Your task to perform on an android device: Show me popular videos on Youtube Image 0: 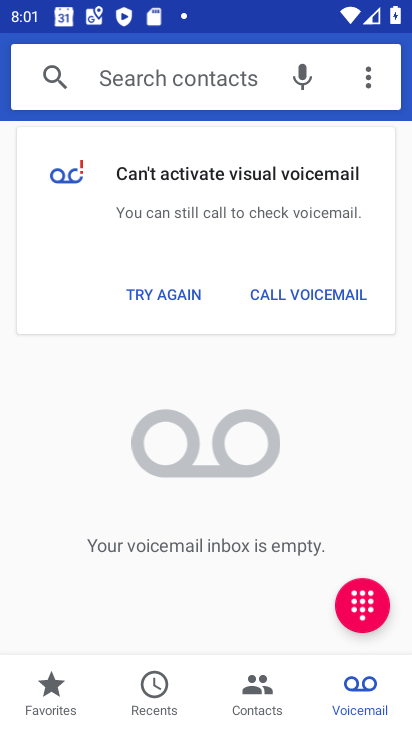
Step 0: press home button
Your task to perform on an android device: Show me popular videos on Youtube Image 1: 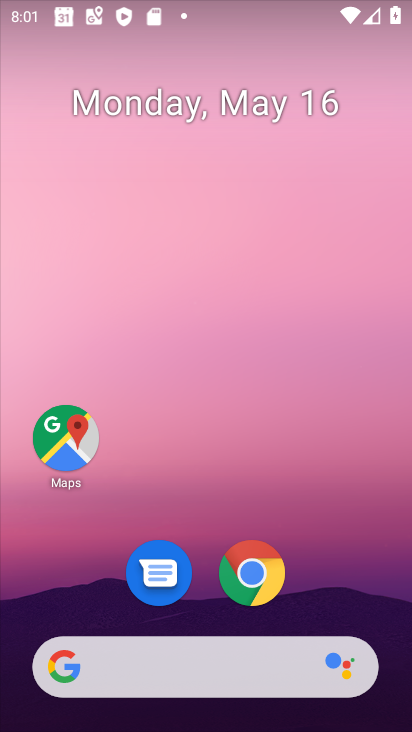
Step 1: drag from (354, 516) to (310, 167)
Your task to perform on an android device: Show me popular videos on Youtube Image 2: 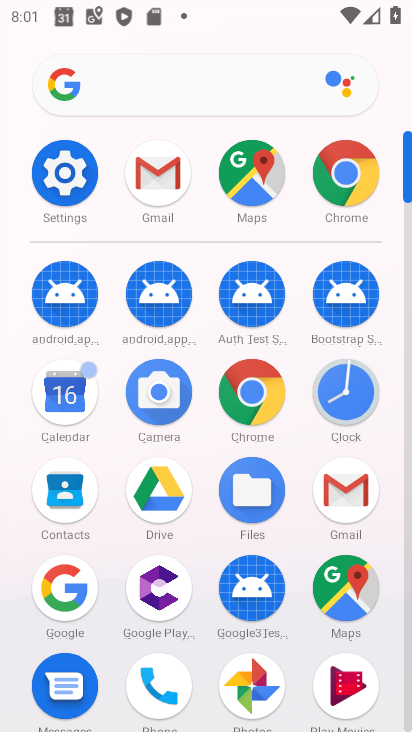
Step 2: drag from (400, 546) to (329, 302)
Your task to perform on an android device: Show me popular videos on Youtube Image 3: 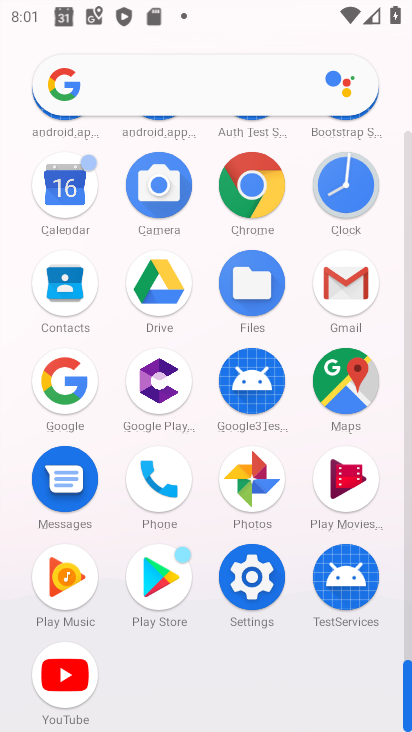
Step 3: click (40, 678)
Your task to perform on an android device: Show me popular videos on Youtube Image 4: 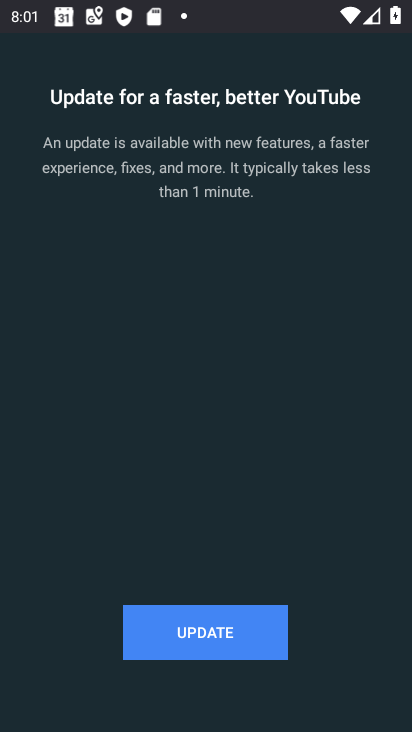
Step 4: click (195, 632)
Your task to perform on an android device: Show me popular videos on Youtube Image 5: 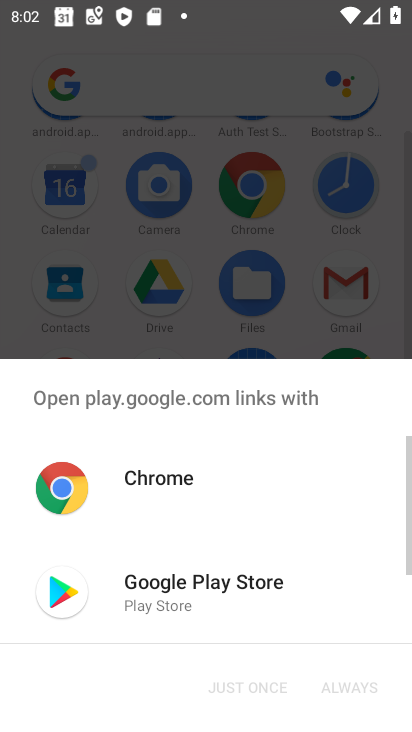
Step 5: click (183, 617)
Your task to perform on an android device: Show me popular videos on Youtube Image 6: 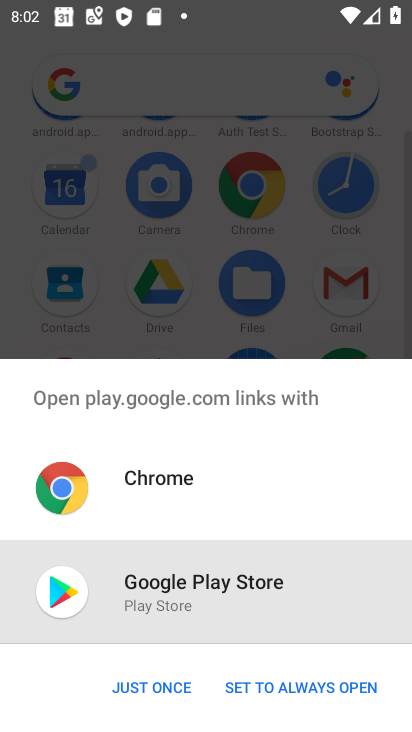
Step 6: click (174, 694)
Your task to perform on an android device: Show me popular videos on Youtube Image 7: 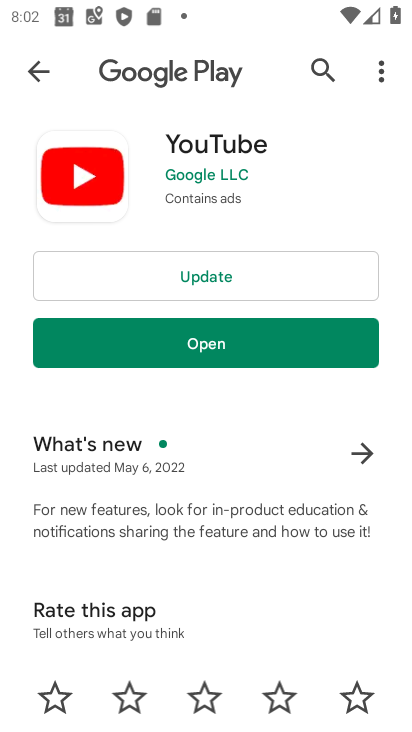
Step 7: click (185, 288)
Your task to perform on an android device: Show me popular videos on Youtube Image 8: 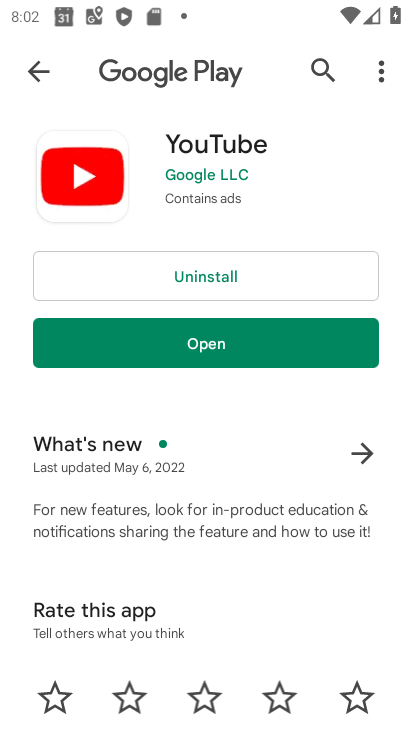
Step 8: click (216, 343)
Your task to perform on an android device: Show me popular videos on Youtube Image 9: 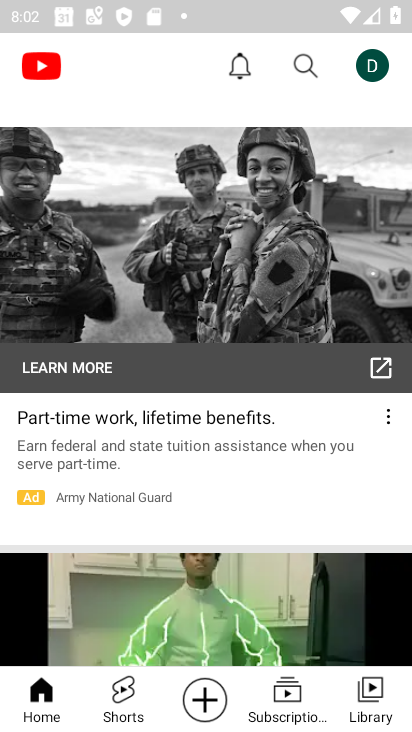
Step 9: click (297, 48)
Your task to perform on an android device: Show me popular videos on Youtube Image 10: 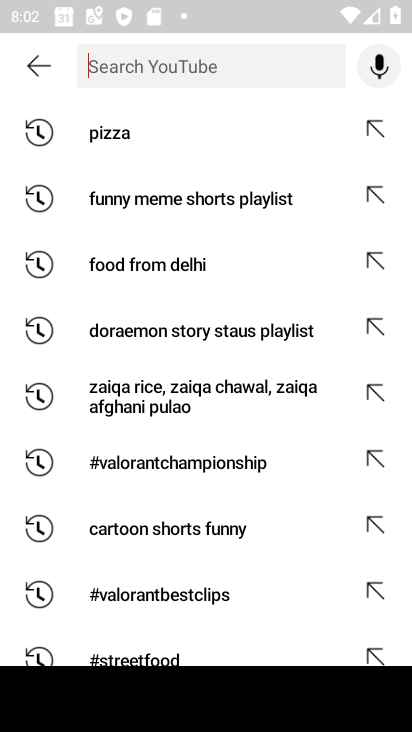
Step 10: type "popularr videos"
Your task to perform on an android device: Show me popular videos on Youtube Image 11: 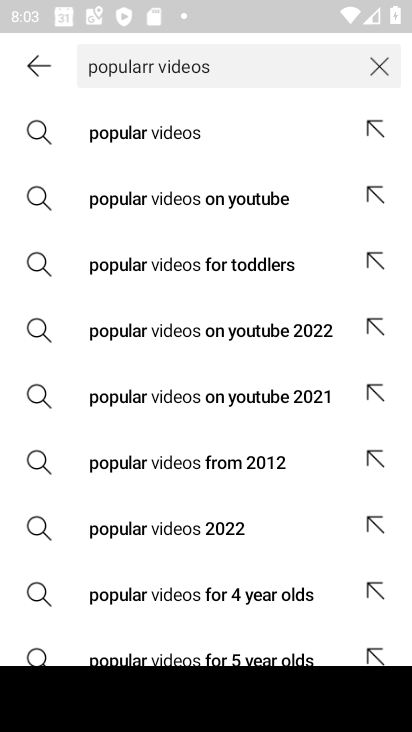
Step 11: click (137, 135)
Your task to perform on an android device: Show me popular videos on Youtube Image 12: 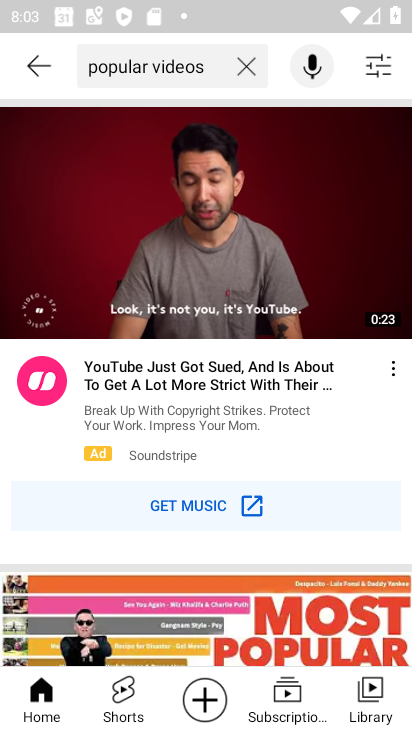
Step 12: task complete